Your task to perform on an android device: move a message to another label in the gmail app Image 0: 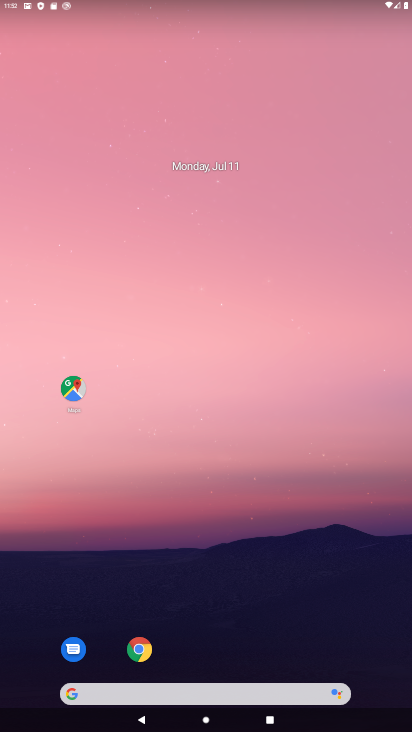
Step 0: drag from (289, 632) to (277, 255)
Your task to perform on an android device: move a message to another label in the gmail app Image 1: 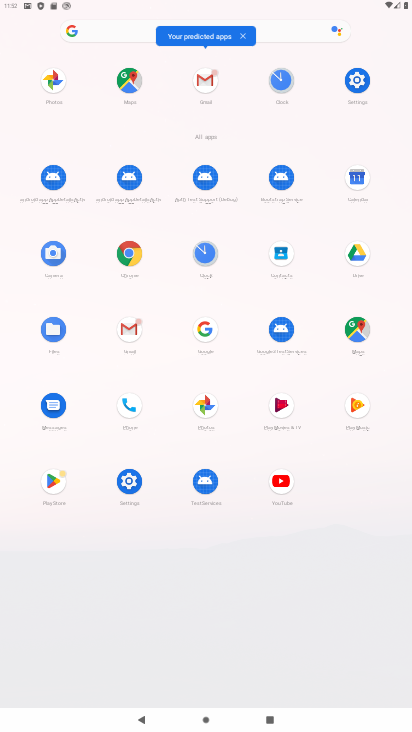
Step 1: click (215, 93)
Your task to perform on an android device: move a message to another label in the gmail app Image 2: 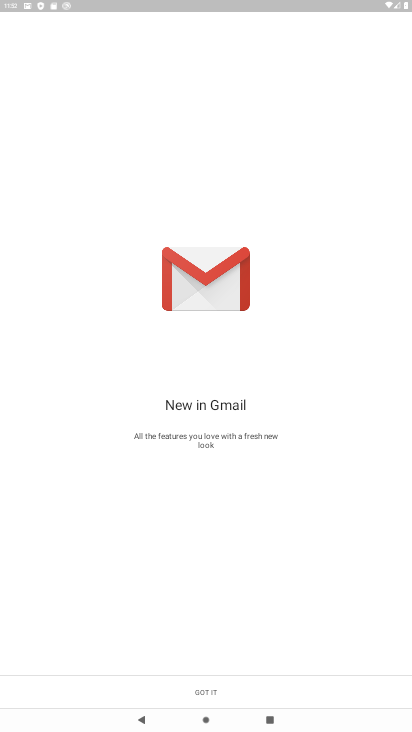
Step 2: click (213, 686)
Your task to perform on an android device: move a message to another label in the gmail app Image 3: 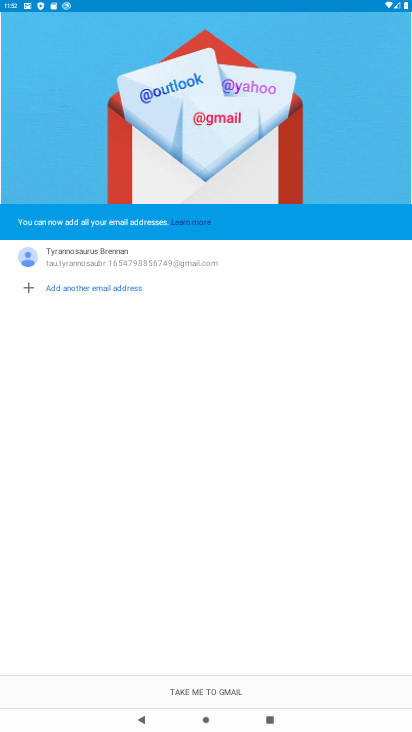
Step 3: click (181, 687)
Your task to perform on an android device: move a message to another label in the gmail app Image 4: 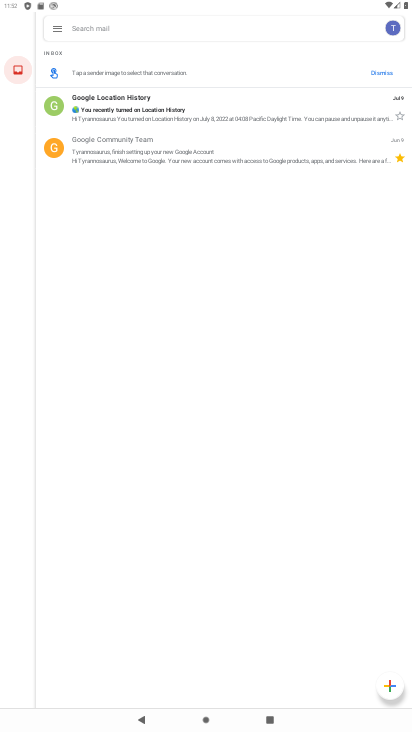
Step 4: task complete